Your task to perform on an android device: Open the phone app and click the voicemail tab. Image 0: 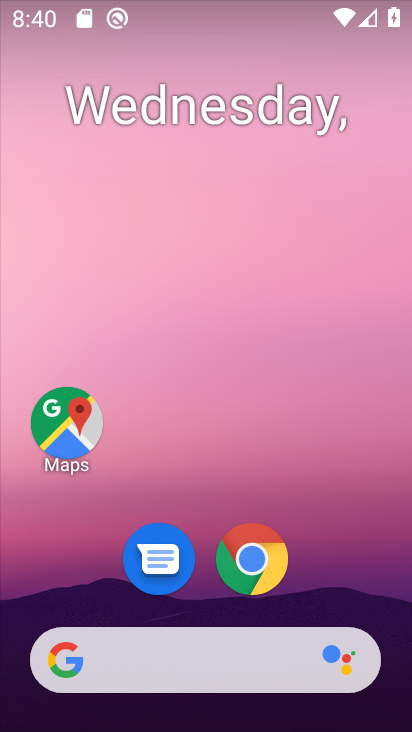
Step 0: drag from (380, 576) to (352, 138)
Your task to perform on an android device: Open the phone app and click the voicemail tab. Image 1: 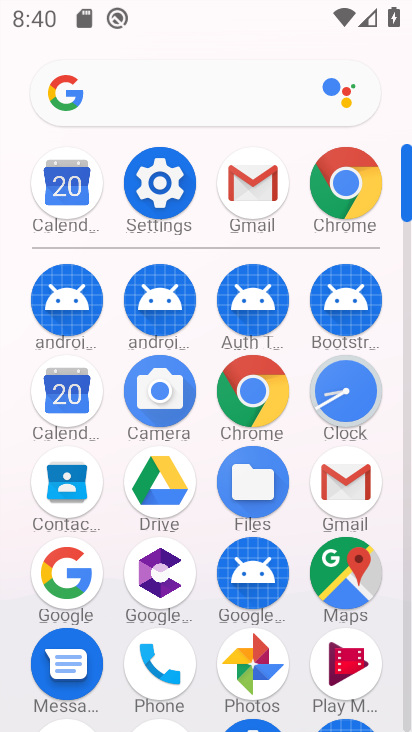
Step 1: click (157, 657)
Your task to perform on an android device: Open the phone app and click the voicemail tab. Image 2: 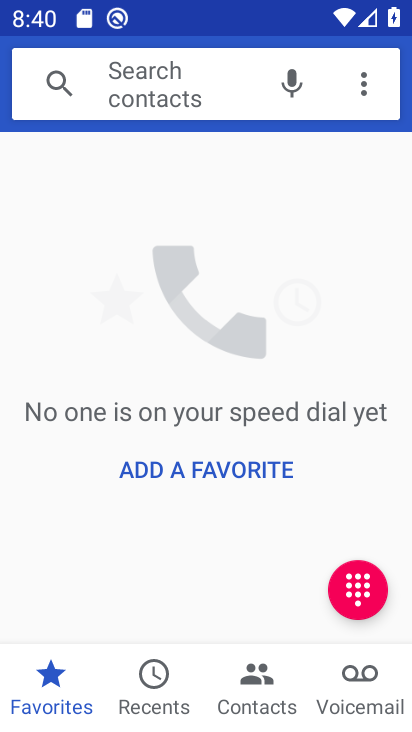
Step 2: click (366, 686)
Your task to perform on an android device: Open the phone app and click the voicemail tab. Image 3: 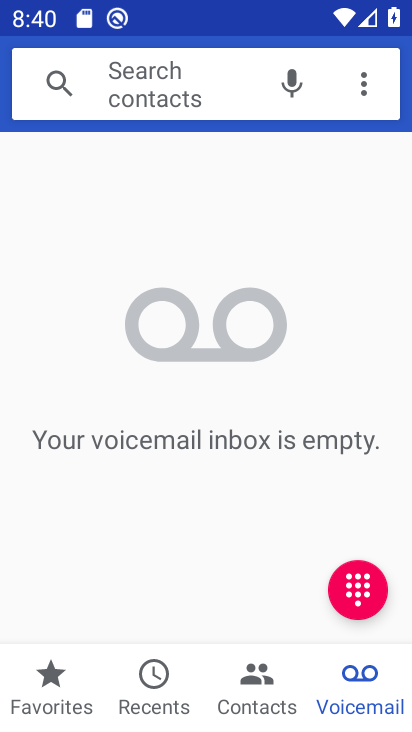
Step 3: task complete